Your task to perform on an android device: change the clock display to analog Image 0: 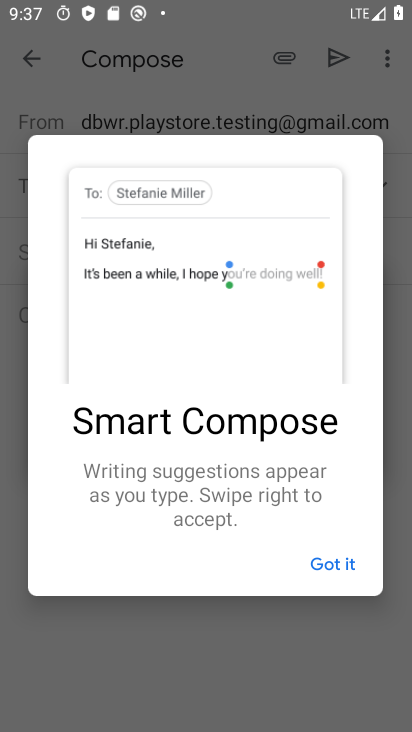
Step 0: press home button
Your task to perform on an android device: change the clock display to analog Image 1: 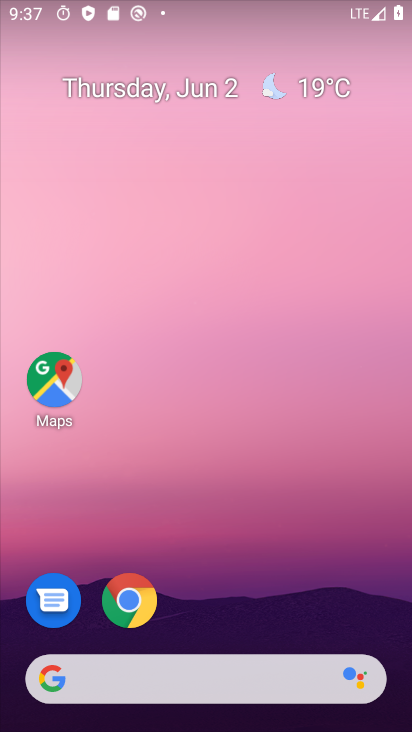
Step 1: drag from (232, 613) to (209, 277)
Your task to perform on an android device: change the clock display to analog Image 2: 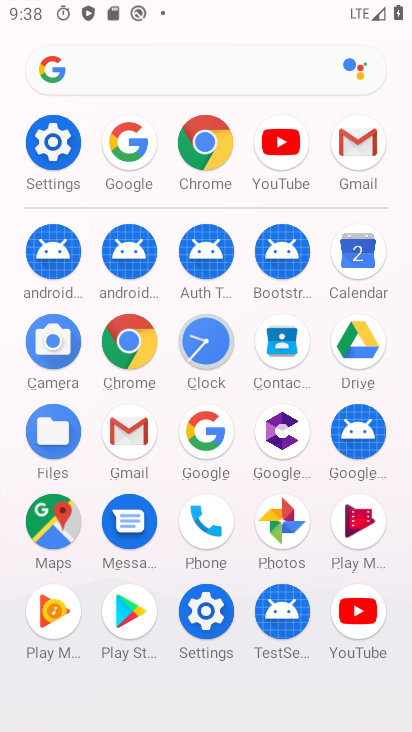
Step 2: click (214, 332)
Your task to perform on an android device: change the clock display to analog Image 3: 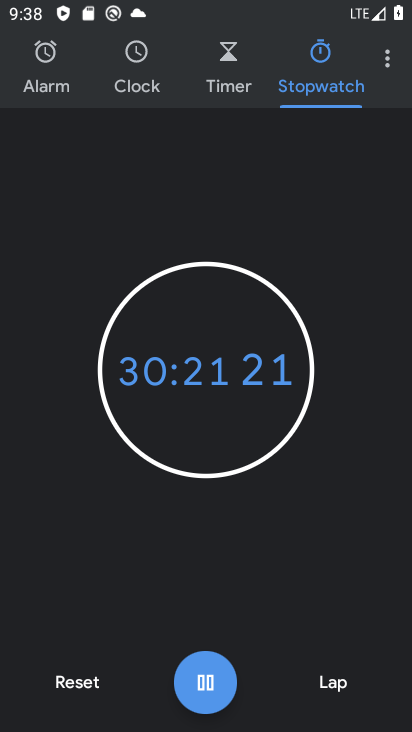
Step 3: click (387, 59)
Your task to perform on an android device: change the clock display to analog Image 4: 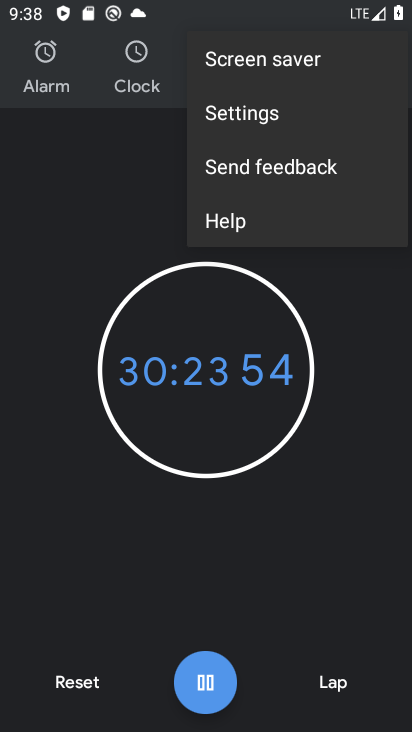
Step 4: click (342, 109)
Your task to perform on an android device: change the clock display to analog Image 5: 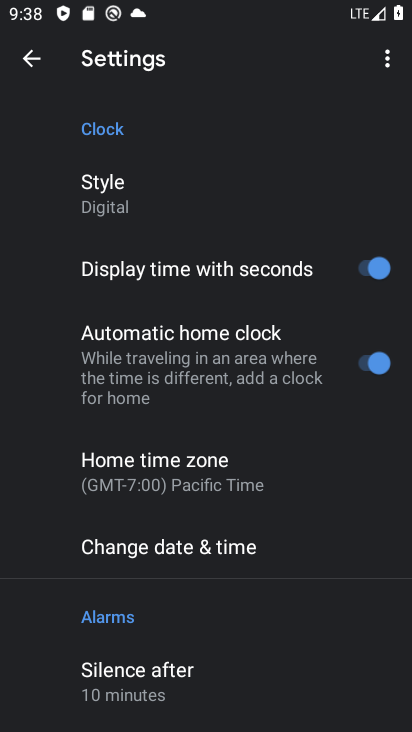
Step 5: click (136, 193)
Your task to perform on an android device: change the clock display to analog Image 6: 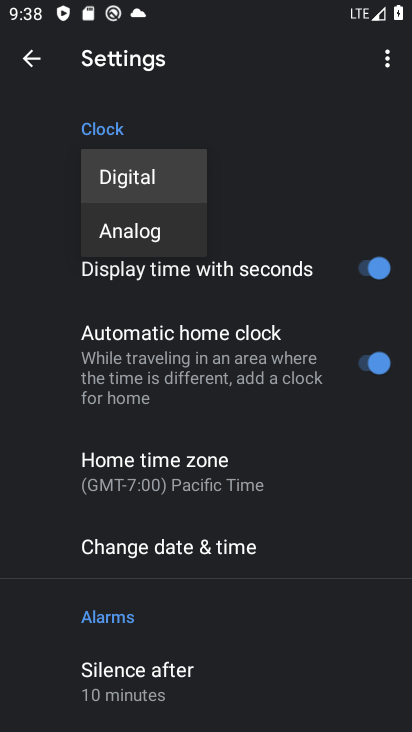
Step 6: click (163, 240)
Your task to perform on an android device: change the clock display to analog Image 7: 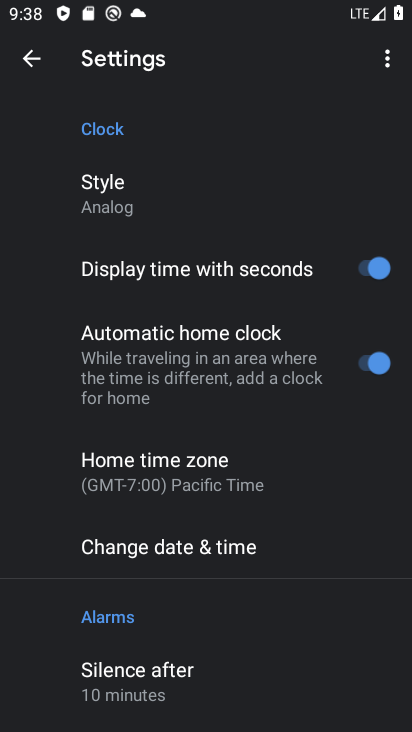
Step 7: task complete